Your task to perform on an android device: turn off picture-in-picture Image 0: 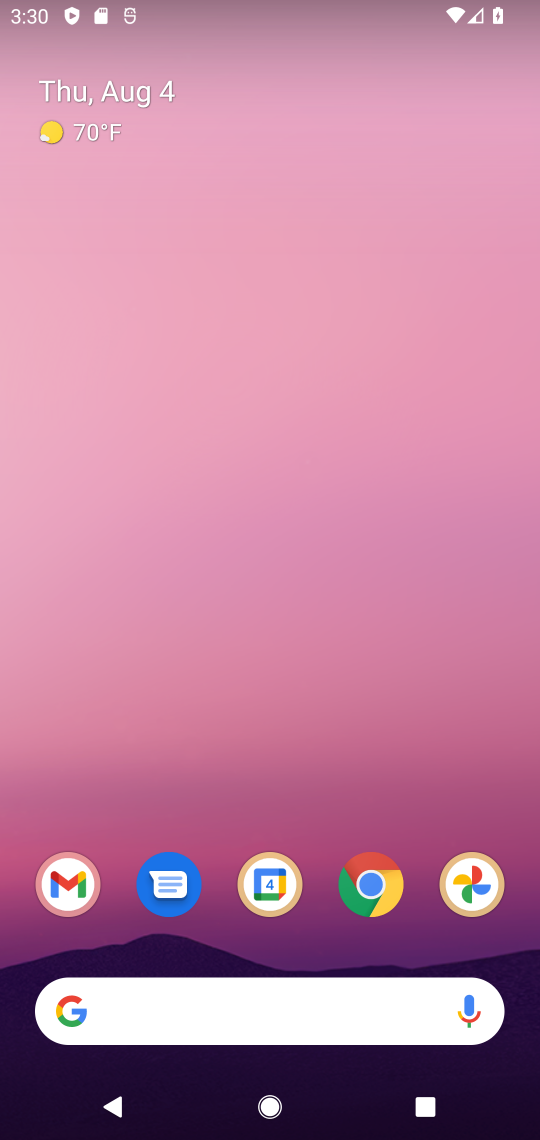
Step 0: drag from (236, 912) to (257, 123)
Your task to perform on an android device: turn off picture-in-picture Image 1: 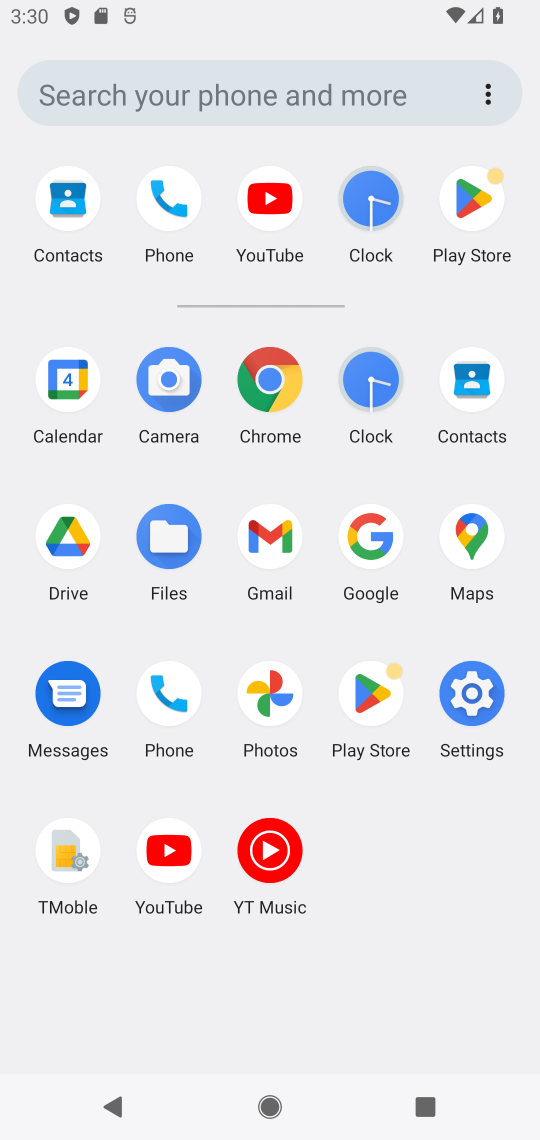
Step 1: click (473, 688)
Your task to perform on an android device: turn off picture-in-picture Image 2: 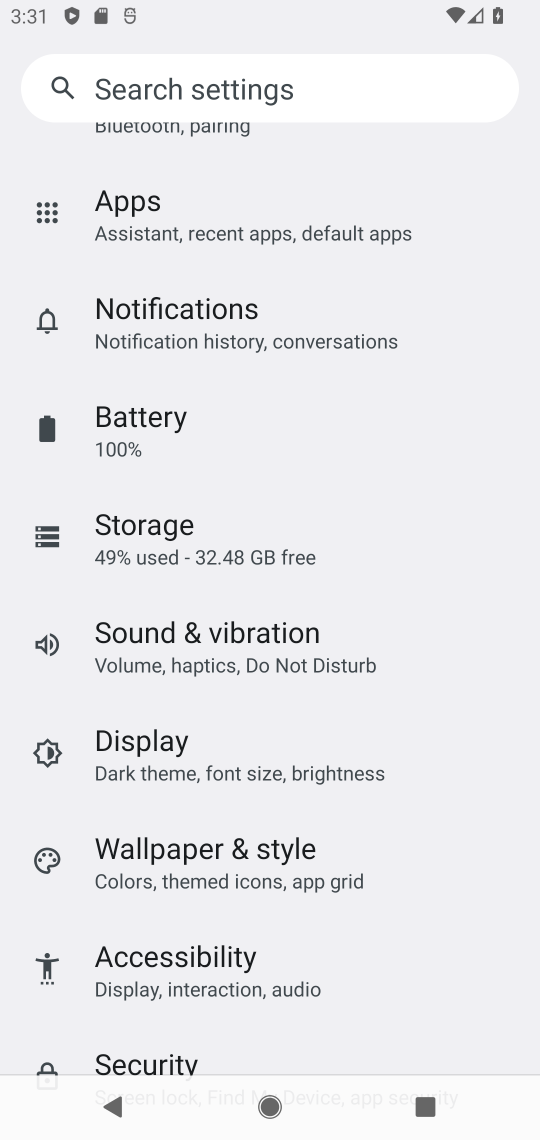
Step 2: click (209, 309)
Your task to perform on an android device: turn off picture-in-picture Image 3: 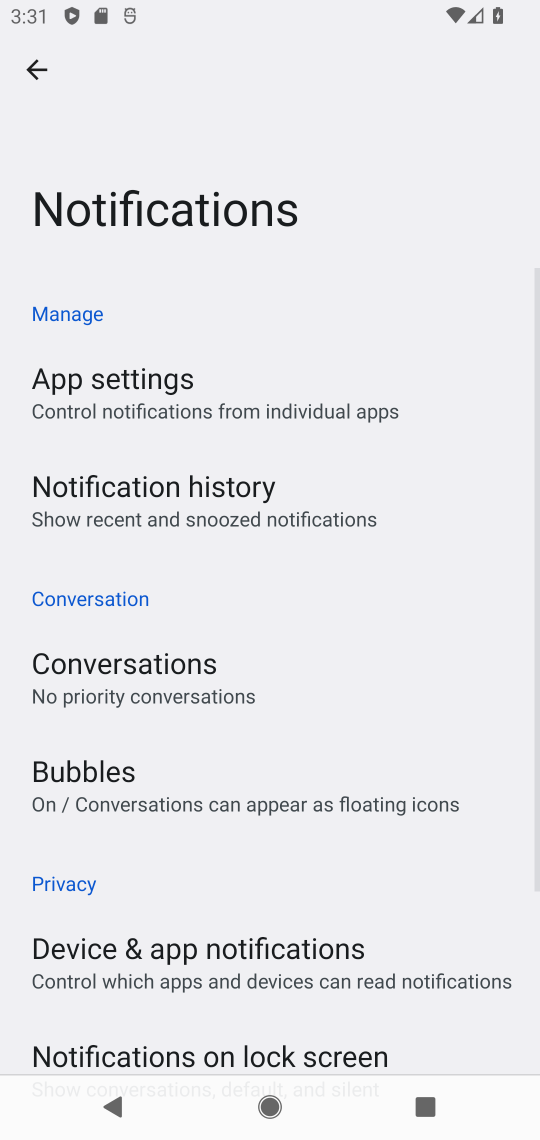
Step 3: click (47, 71)
Your task to perform on an android device: turn off picture-in-picture Image 4: 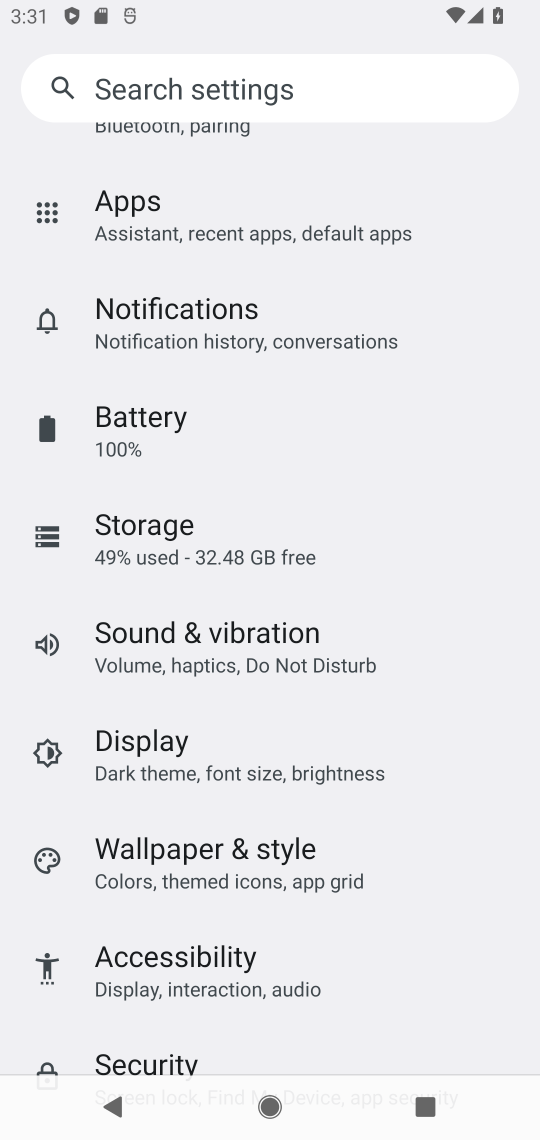
Step 4: click (170, 218)
Your task to perform on an android device: turn off picture-in-picture Image 5: 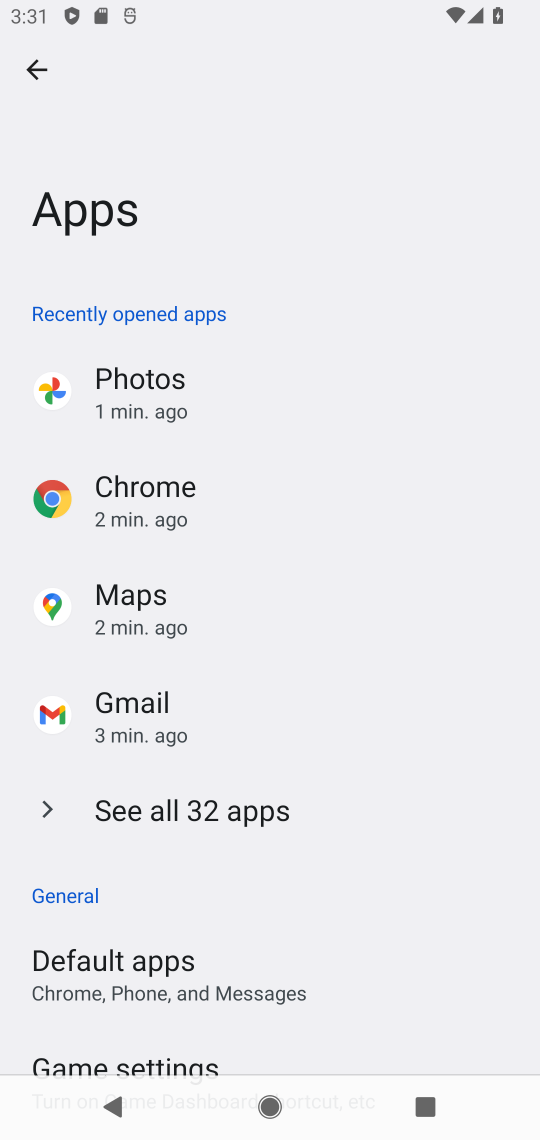
Step 5: drag from (291, 995) to (322, 434)
Your task to perform on an android device: turn off picture-in-picture Image 6: 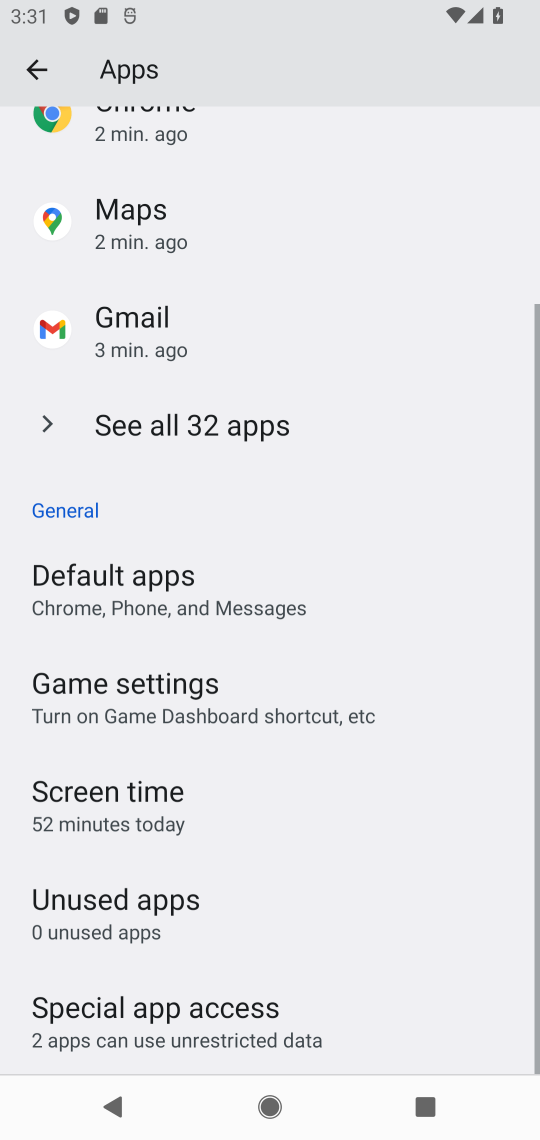
Step 6: drag from (144, 927) to (282, 433)
Your task to perform on an android device: turn off picture-in-picture Image 7: 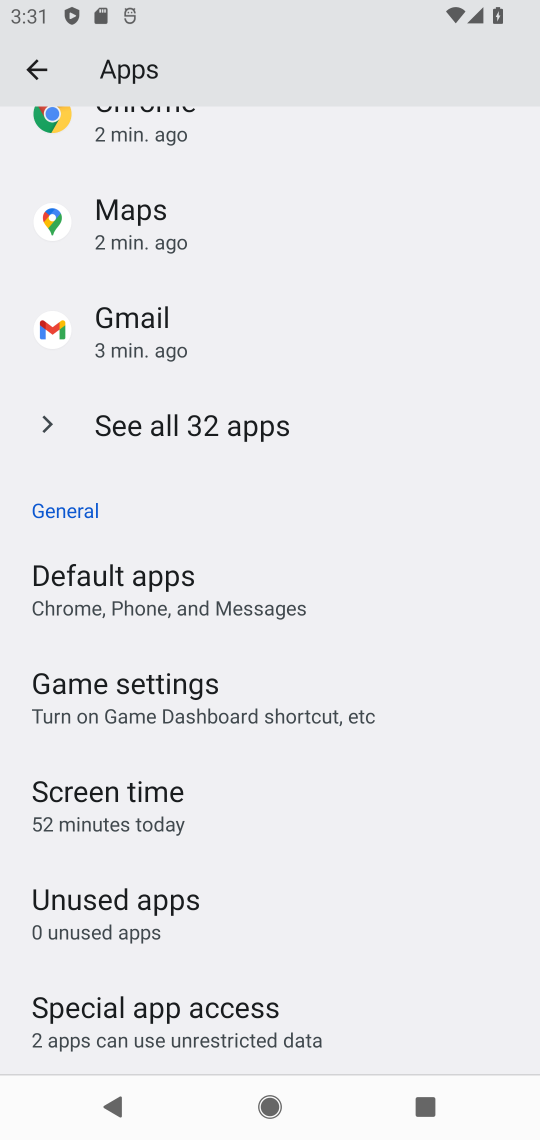
Step 7: click (265, 1007)
Your task to perform on an android device: turn off picture-in-picture Image 8: 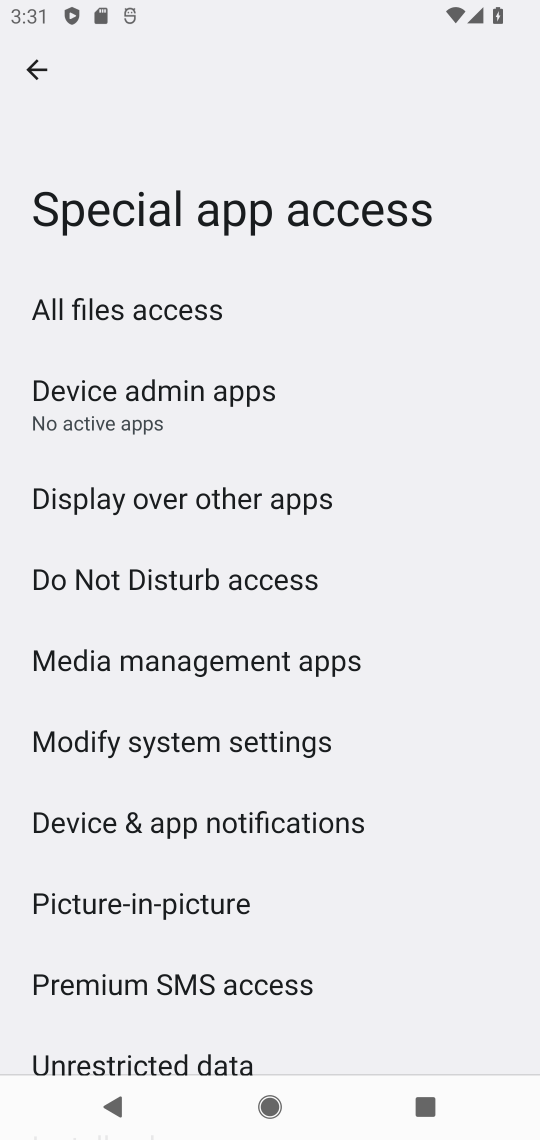
Step 8: click (217, 886)
Your task to perform on an android device: turn off picture-in-picture Image 9: 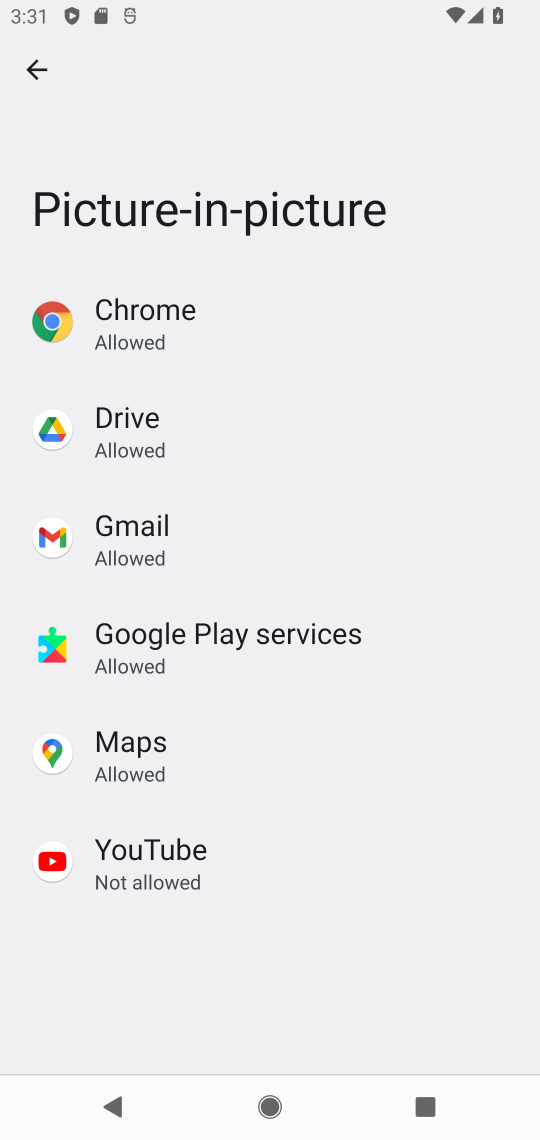
Step 9: click (197, 877)
Your task to perform on an android device: turn off picture-in-picture Image 10: 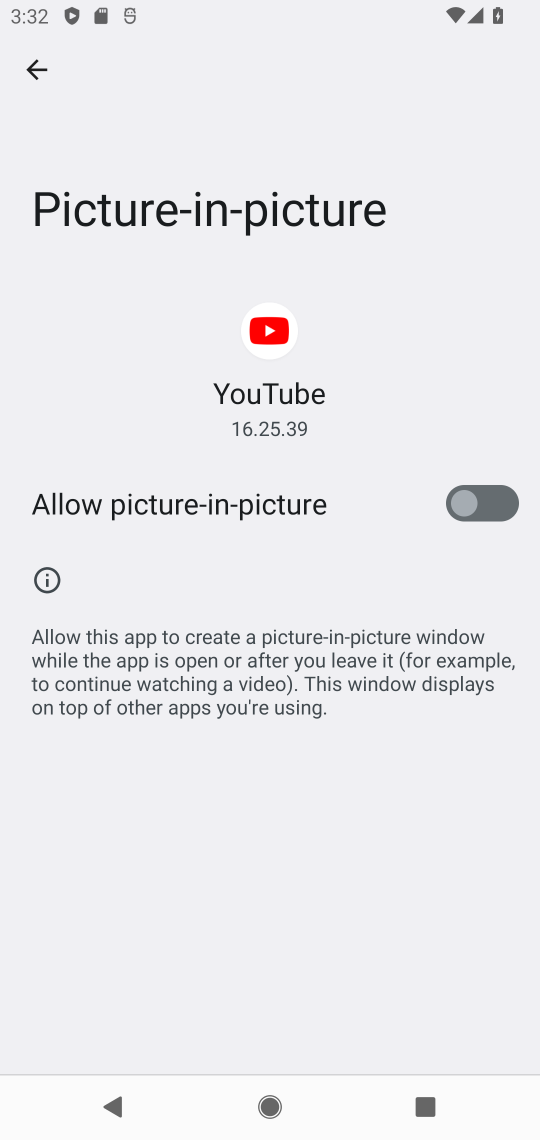
Step 10: task complete